Your task to perform on an android device: Check the weather Image 0: 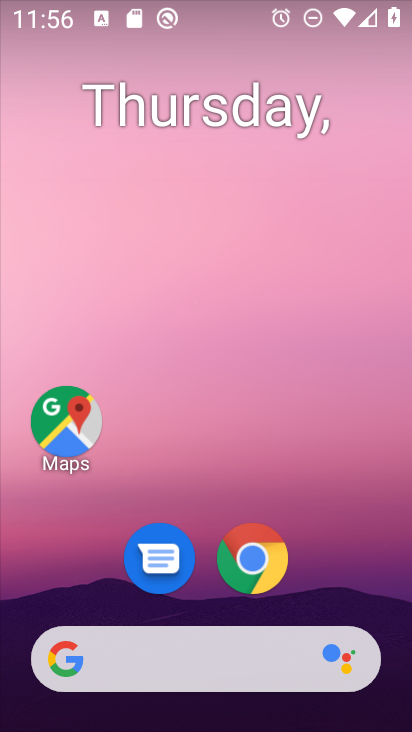
Step 0: drag from (6, 143) to (406, 198)
Your task to perform on an android device: Check the weather Image 1: 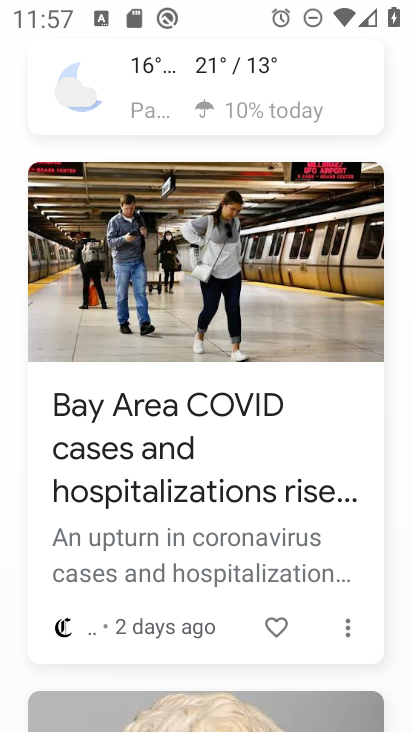
Step 1: click (254, 86)
Your task to perform on an android device: Check the weather Image 2: 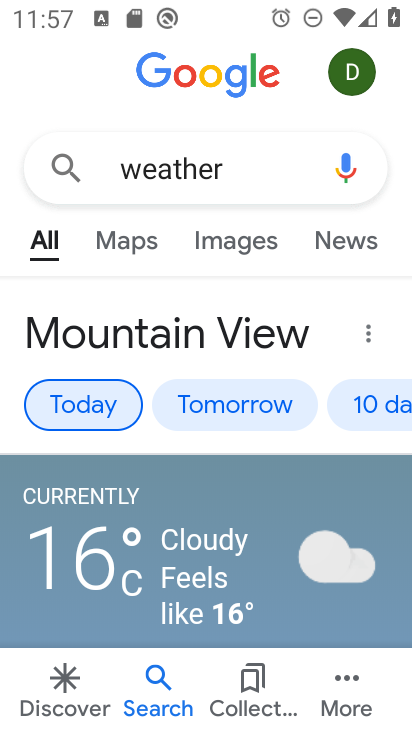
Step 2: task complete